Your task to perform on an android device: Go to accessibility settings Image 0: 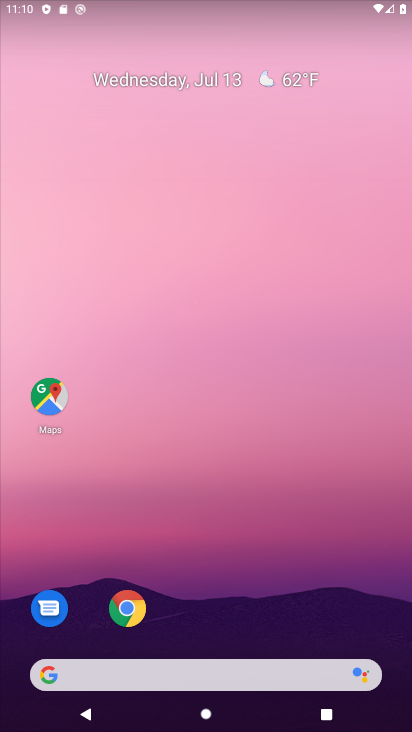
Step 0: drag from (240, 670) to (197, 142)
Your task to perform on an android device: Go to accessibility settings Image 1: 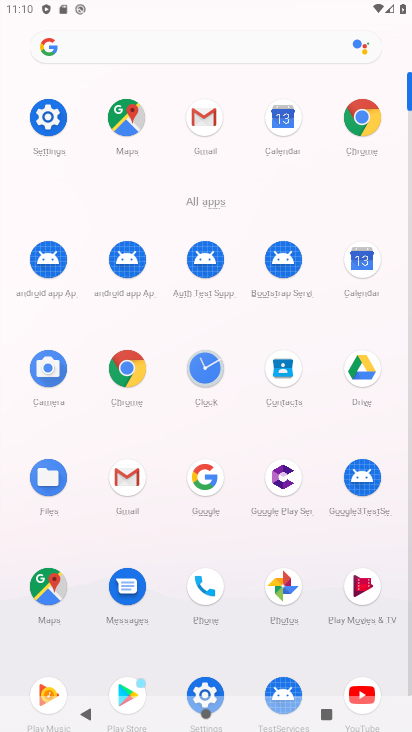
Step 1: click (43, 117)
Your task to perform on an android device: Go to accessibility settings Image 2: 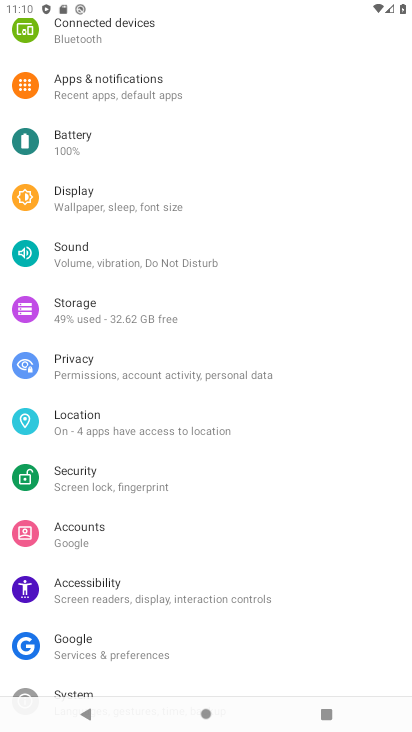
Step 2: click (92, 592)
Your task to perform on an android device: Go to accessibility settings Image 3: 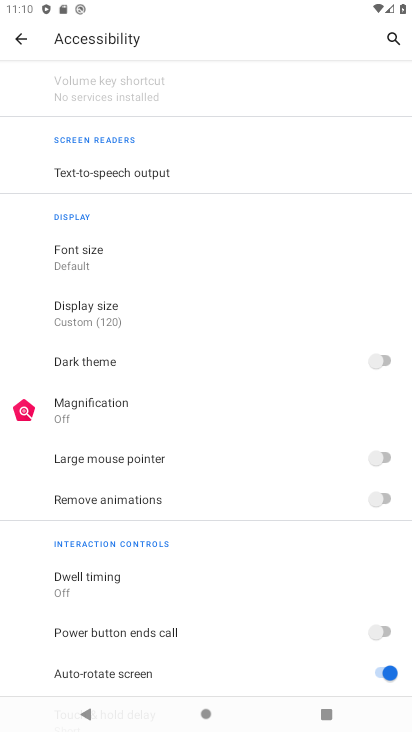
Step 3: task complete